Your task to perform on an android device: Open Wikipedia Image 0: 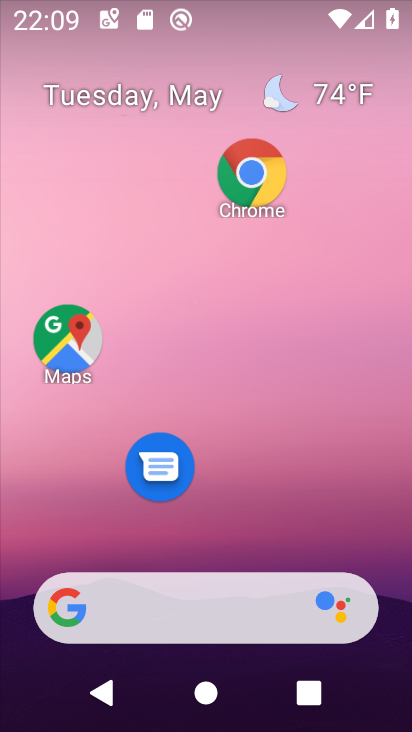
Step 0: drag from (361, 519) to (349, 181)
Your task to perform on an android device: Open Wikipedia Image 1: 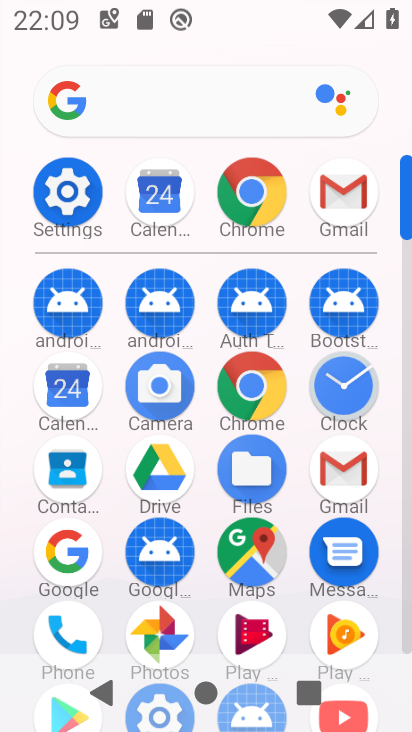
Step 1: click (253, 218)
Your task to perform on an android device: Open Wikipedia Image 2: 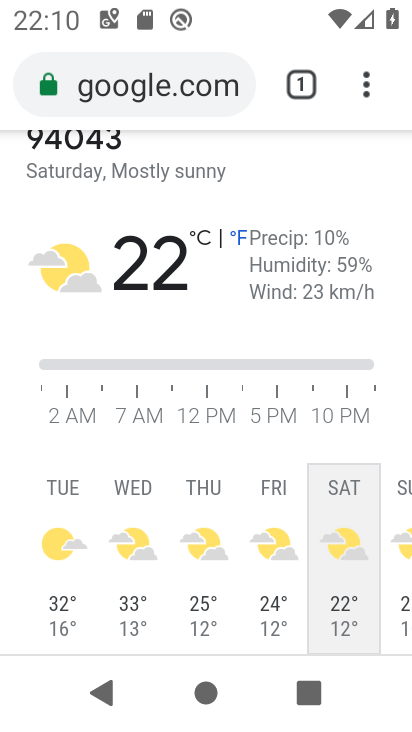
Step 2: click (162, 78)
Your task to perform on an android device: Open Wikipedia Image 3: 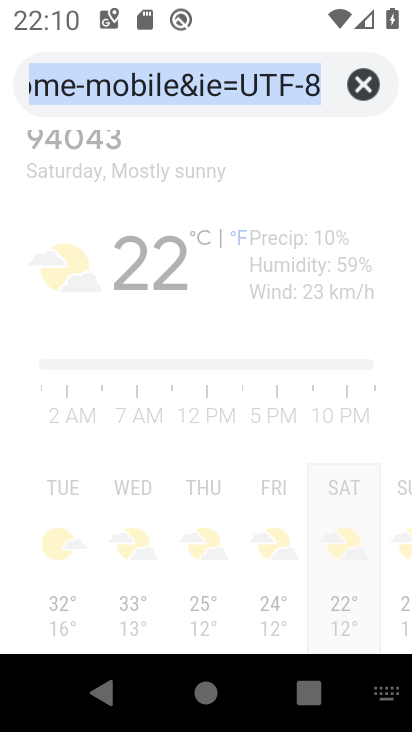
Step 3: click (361, 87)
Your task to perform on an android device: Open Wikipedia Image 4: 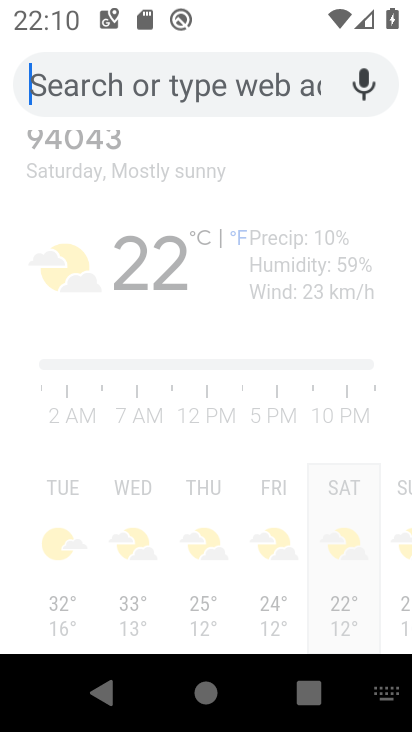
Step 4: type "wikipedia"
Your task to perform on an android device: Open Wikipedia Image 5: 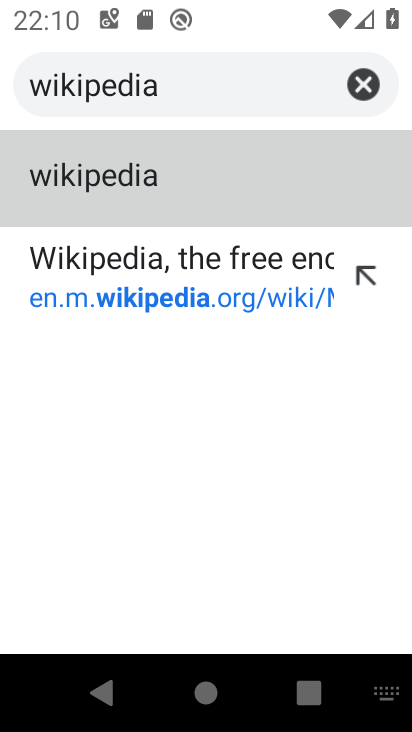
Step 5: click (84, 190)
Your task to perform on an android device: Open Wikipedia Image 6: 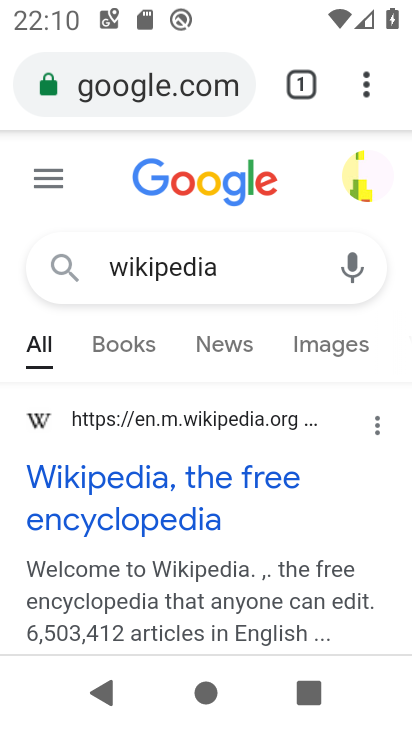
Step 6: task complete